Your task to perform on an android device: set the stopwatch Image 0: 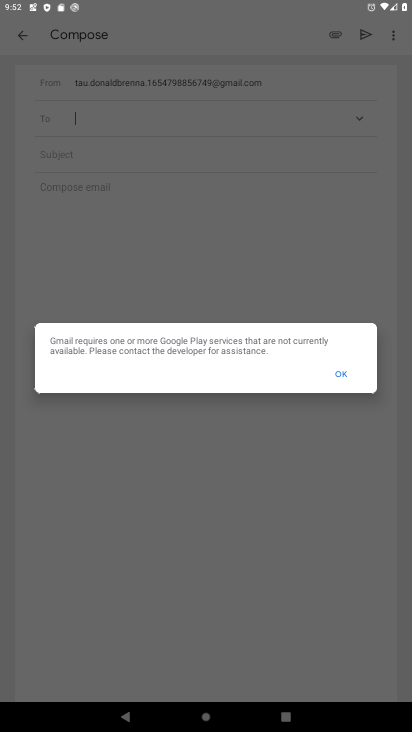
Step 0: press home button
Your task to perform on an android device: set the stopwatch Image 1: 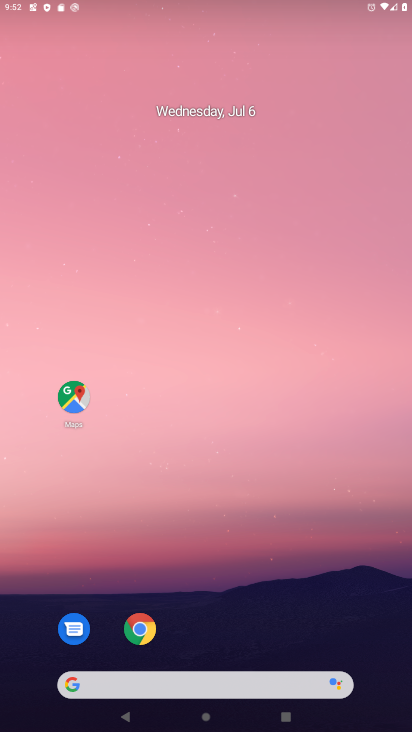
Step 1: drag from (101, 543) to (386, 91)
Your task to perform on an android device: set the stopwatch Image 2: 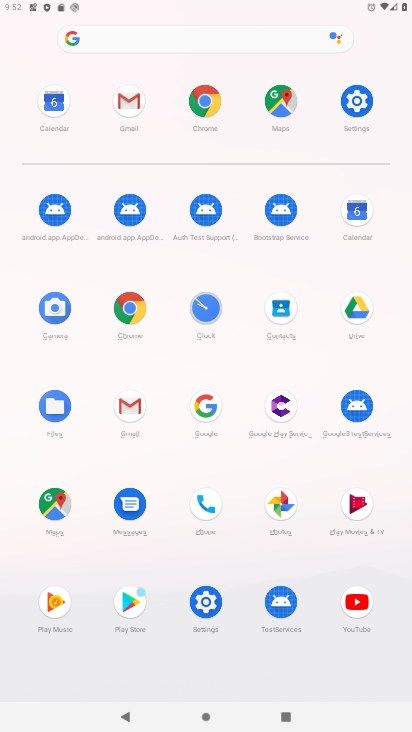
Step 2: click (210, 313)
Your task to perform on an android device: set the stopwatch Image 3: 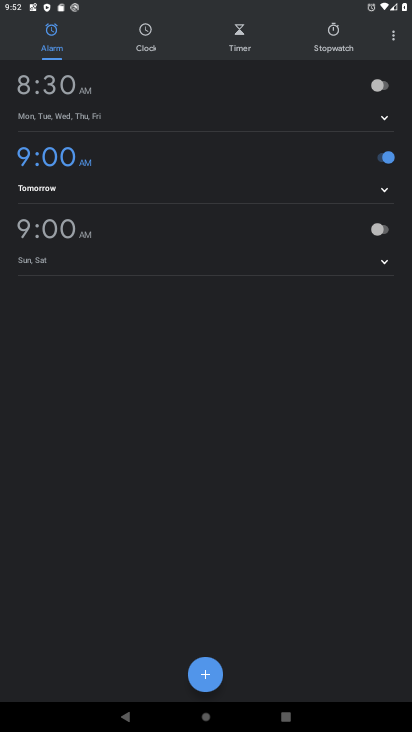
Step 3: click (328, 34)
Your task to perform on an android device: set the stopwatch Image 4: 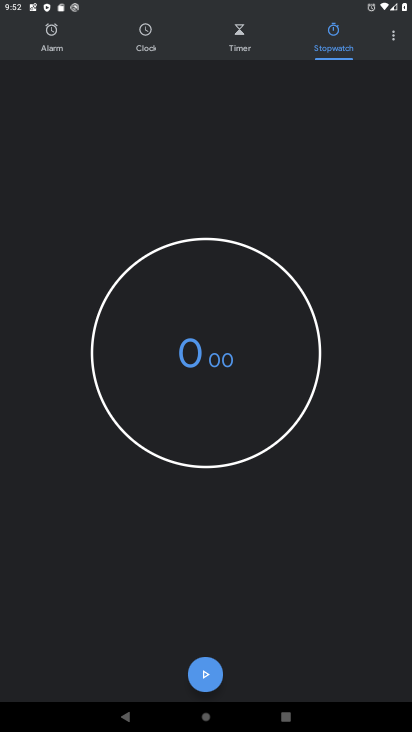
Step 4: click (206, 676)
Your task to perform on an android device: set the stopwatch Image 5: 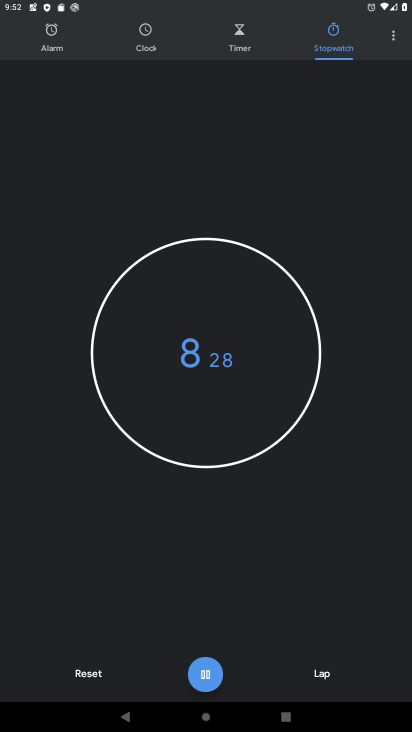
Step 5: task complete